Your task to perform on an android device: Open Wikipedia Image 0: 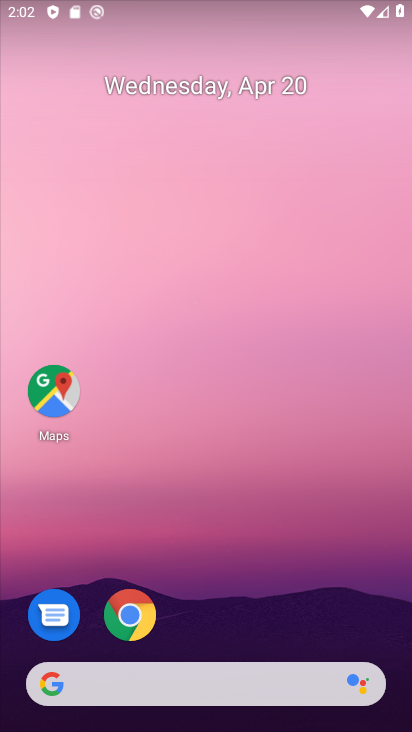
Step 0: drag from (360, 118) to (361, 55)
Your task to perform on an android device: Open Wikipedia Image 1: 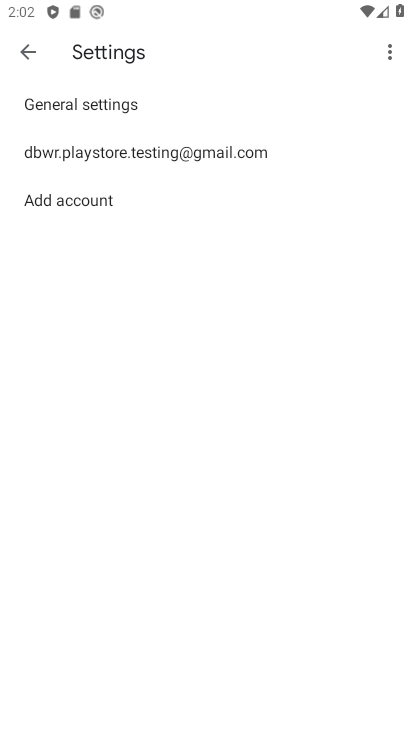
Step 1: drag from (367, 0) to (261, 357)
Your task to perform on an android device: Open Wikipedia Image 2: 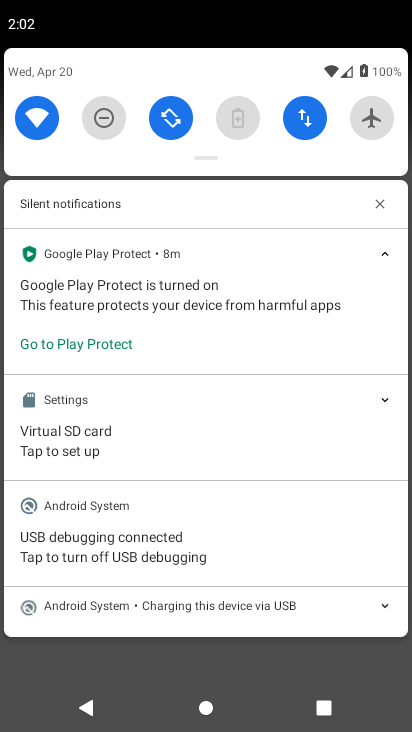
Step 2: press home button
Your task to perform on an android device: Open Wikipedia Image 3: 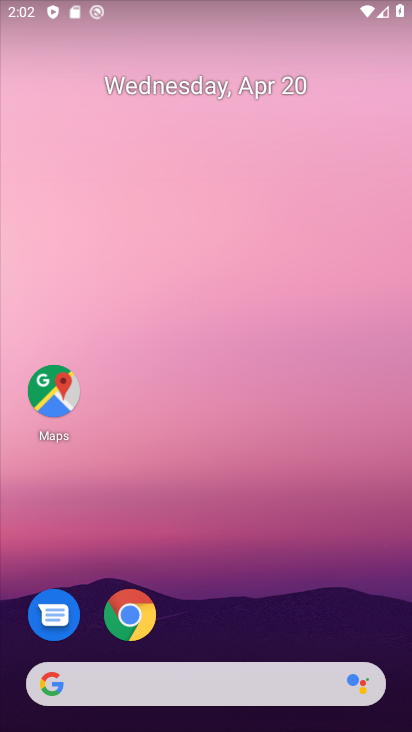
Step 3: click (138, 622)
Your task to perform on an android device: Open Wikipedia Image 4: 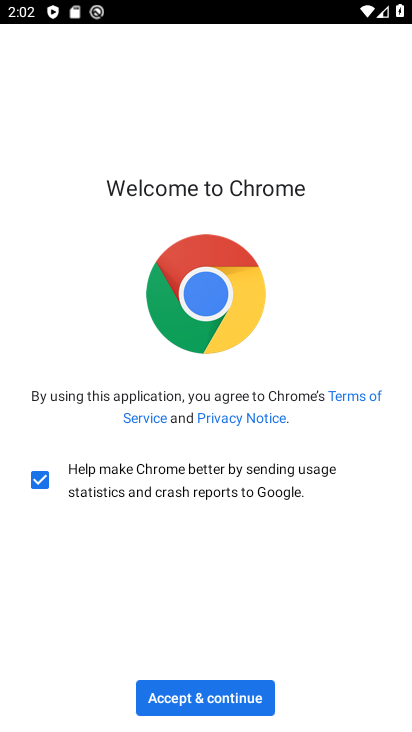
Step 4: click (207, 695)
Your task to perform on an android device: Open Wikipedia Image 5: 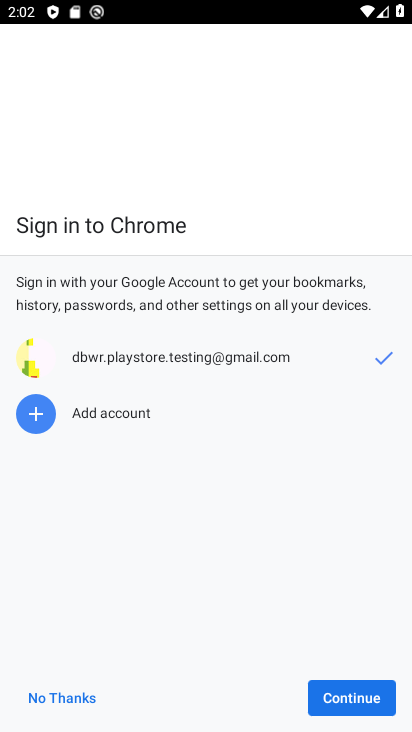
Step 5: click (358, 688)
Your task to perform on an android device: Open Wikipedia Image 6: 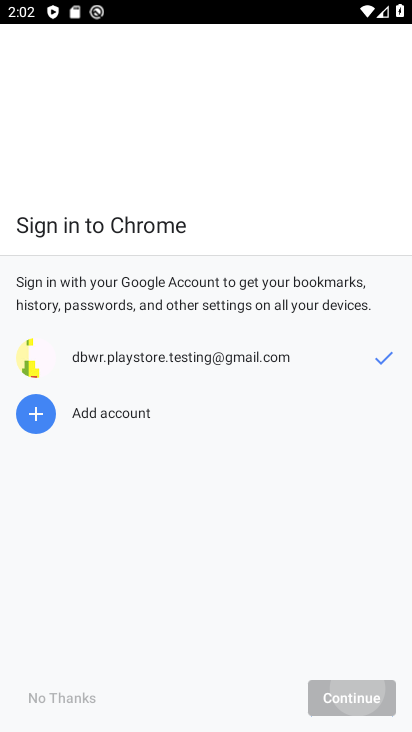
Step 6: click (358, 688)
Your task to perform on an android device: Open Wikipedia Image 7: 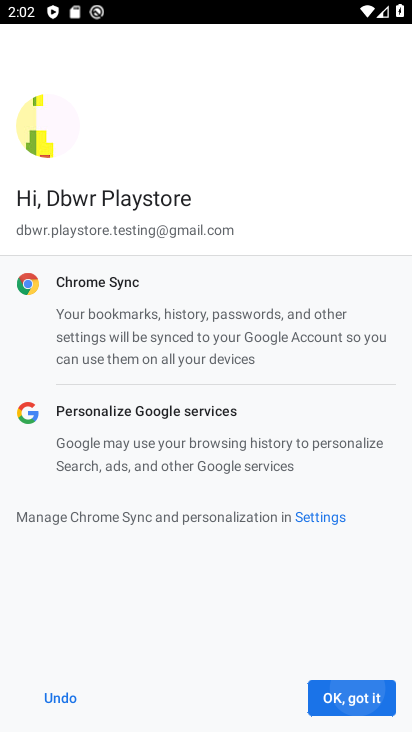
Step 7: click (358, 688)
Your task to perform on an android device: Open Wikipedia Image 8: 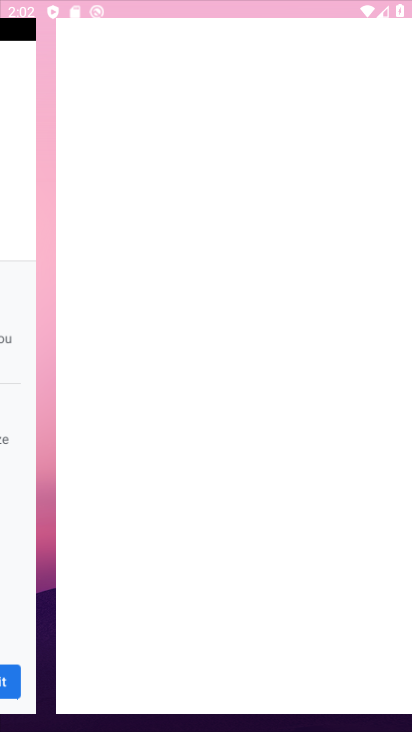
Step 8: click (358, 688)
Your task to perform on an android device: Open Wikipedia Image 9: 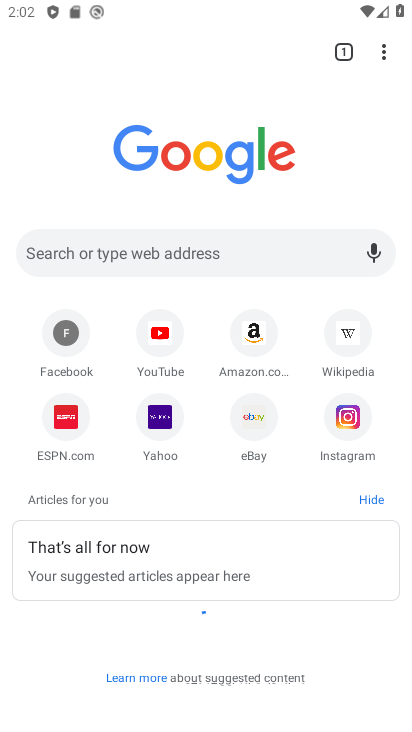
Step 9: click (383, 44)
Your task to perform on an android device: Open Wikipedia Image 10: 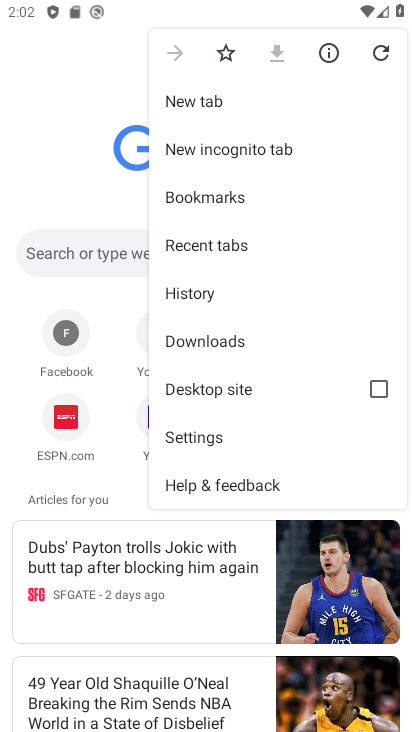
Step 10: click (97, 200)
Your task to perform on an android device: Open Wikipedia Image 11: 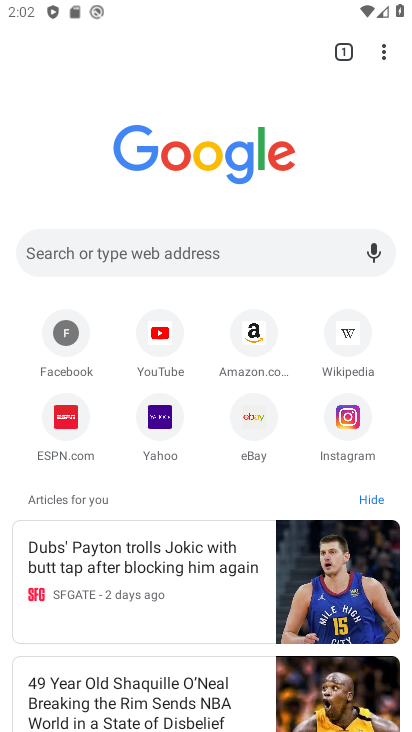
Step 11: click (344, 335)
Your task to perform on an android device: Open Wikipedia Image 12: 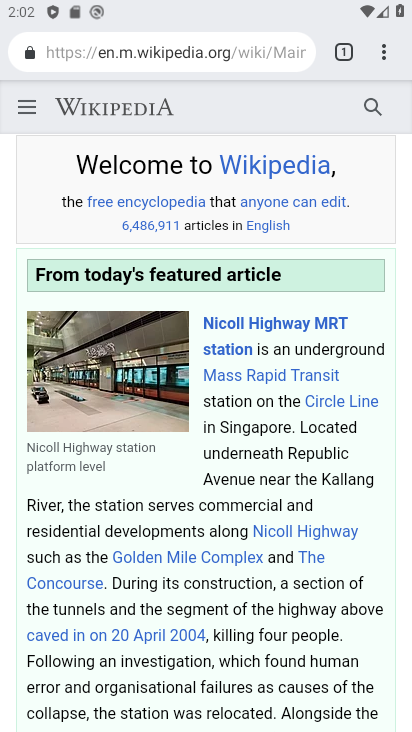
Step 12: task complete